Your task to perform on an android device: search for starred emails in the gmail app Image 0: 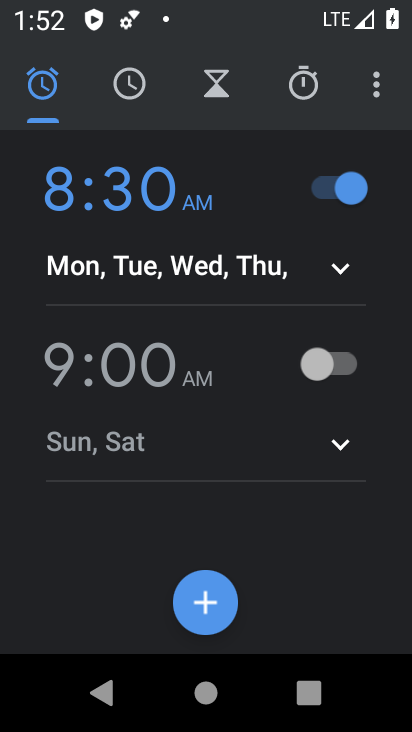
Step 0: drag from (279, 597) to (273, 419)
Your task to perform on an android device: search for starred emails in the gmail app Image 1: 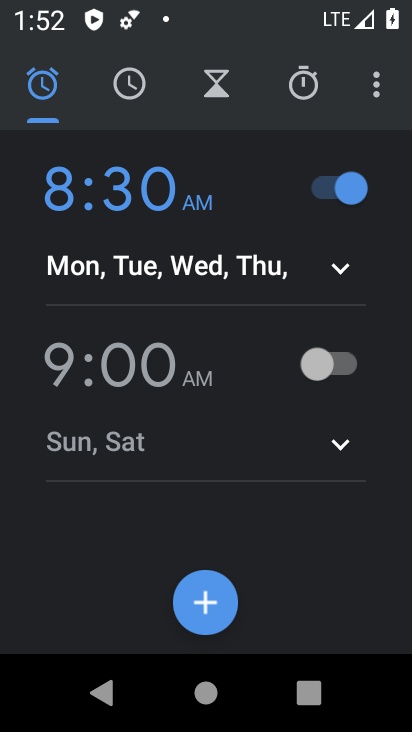
Step 1: drag from (296, 476) to (329, 601)
Your task to perform on an android device: search for starred emails in the gmail app Image 2: 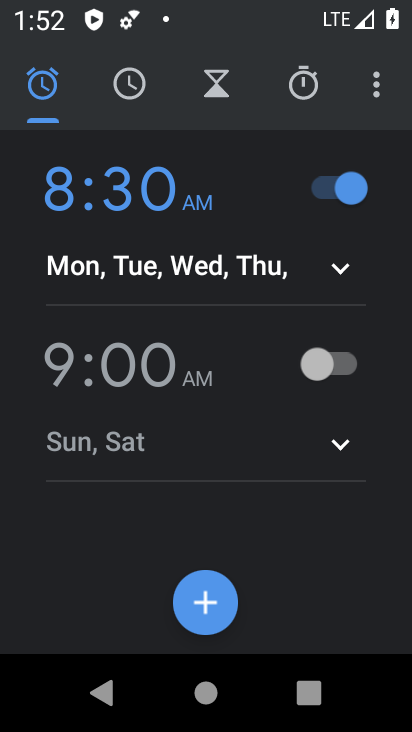
Step 2: press home button
Your task to perform on an android device: search for starred emails in the gmail app Image 3: 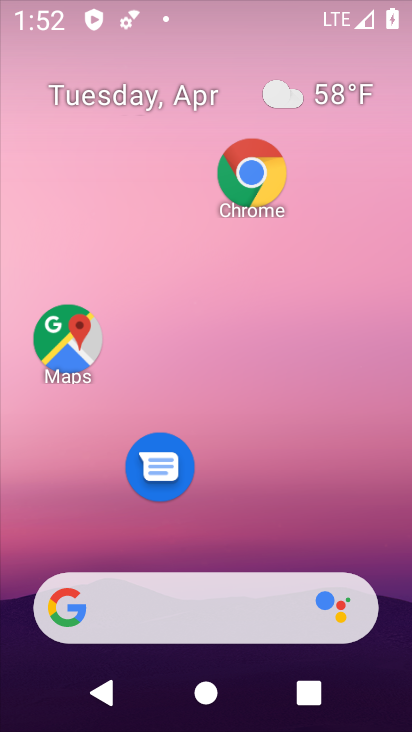
Step 3: drag from (79, 623) to (198, 118)
Your task to perform on an android device: search for starred emails in the gmail app Image 4: 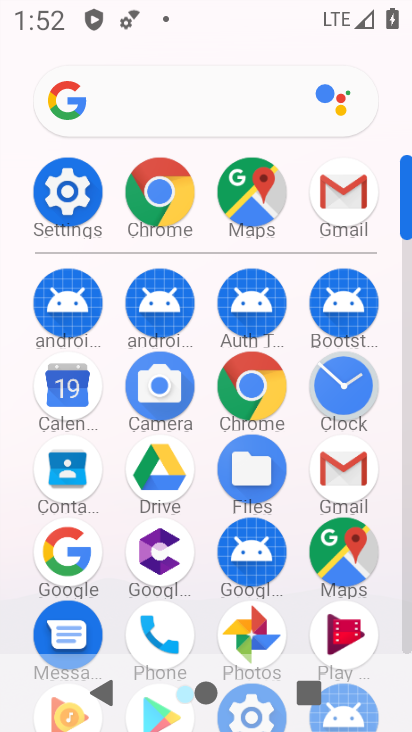
Step 4: click (344, 461)
Your task to perform on an android device: search for starred emails in the gmail app Image 5: 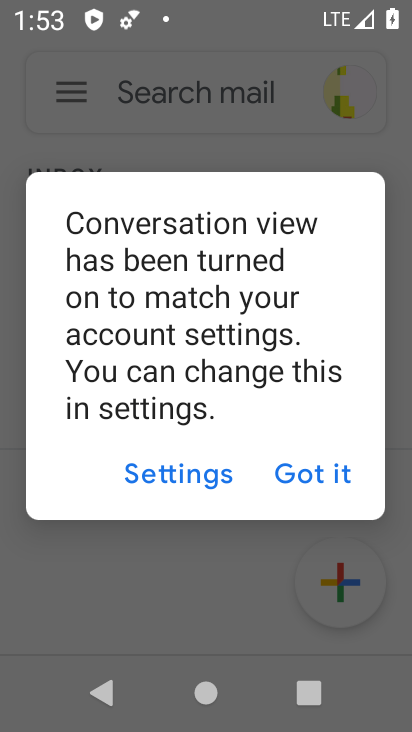
Step 5: click (314, 461)
Your task to perform on an android device: search for starred emails in the gmail app Image 6: 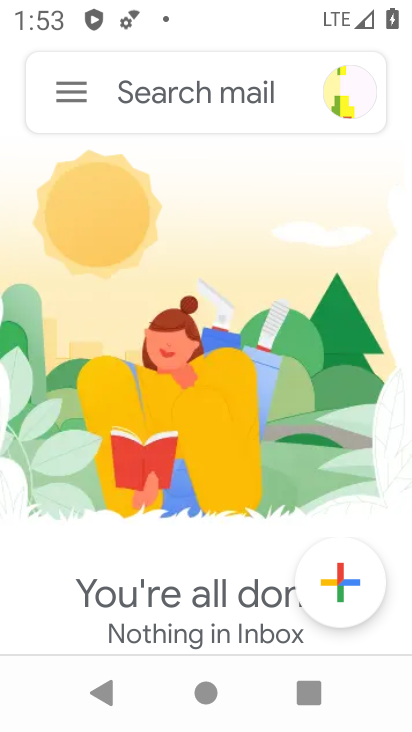
Step 6: click (72, 83)
Your task to perform on an android device: search for starred emails in the gmail app Image 7: 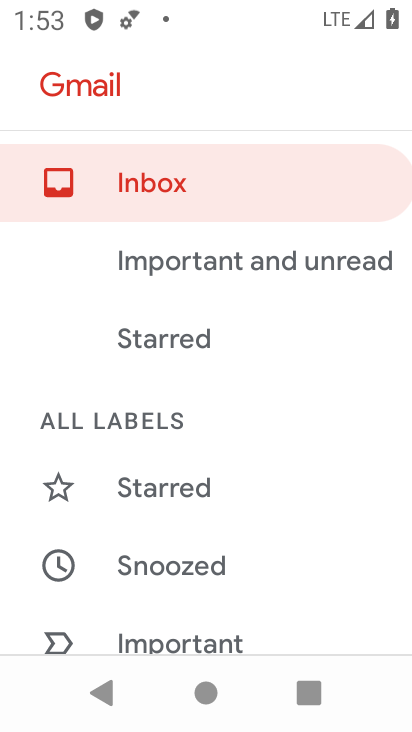
Step 7: click (149, 489)
Your task to perform on an android device: search for starred emails in the gmail app Image 8: 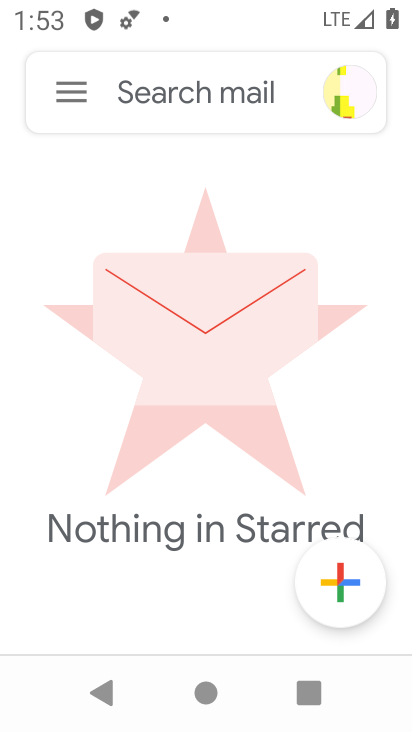
Step 8: task complete